Your task to perform on an android device: show emergency info Image 0: 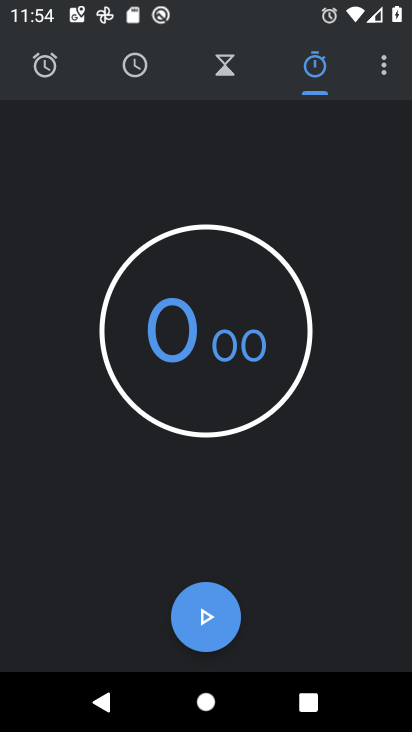
Step 0: press home button
Your task to perform on an android device: show emergency info Image 1: 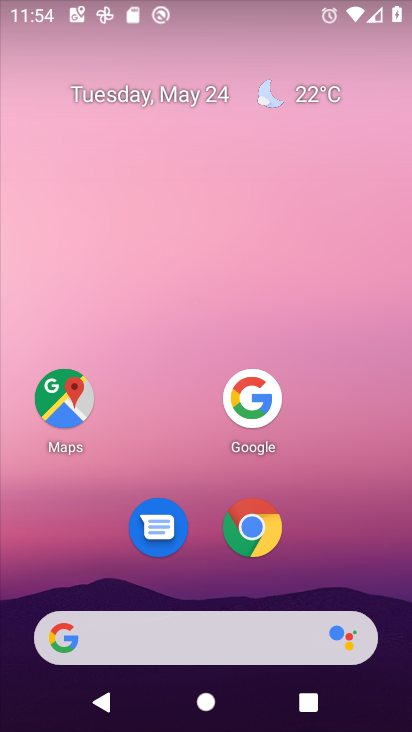
Step 1: drag from (222, 649) to (360, 101)
Your task to perform on an android device: show emergency info Image 2: 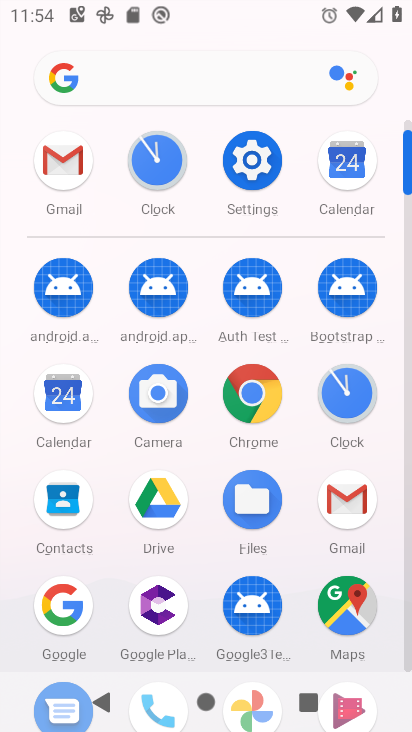
Step 2: click (246, 176)
Your task to perform on an android device: show emergency info Image 3: 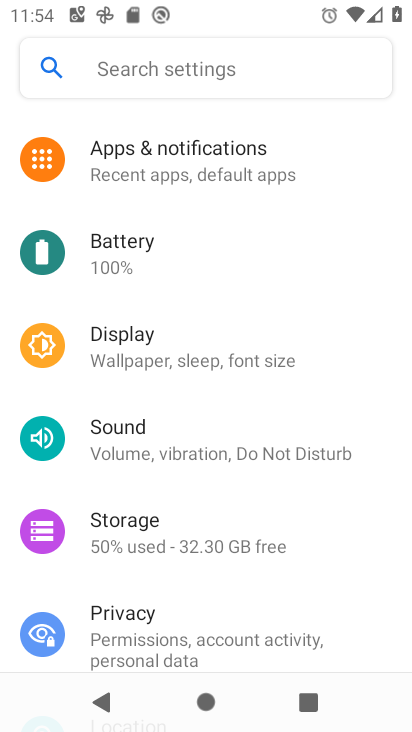
Step 3: drag from (222, 620) to (387, 29)
Your task to perform on an android device: show emergency info Image 4: 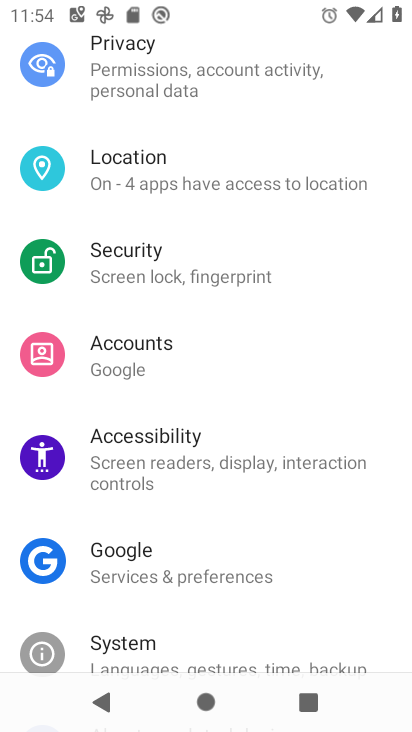
Step 4: drag from (223, 628) to (387, 13)
Your task to perform on an android device: show emergency info Image 5: 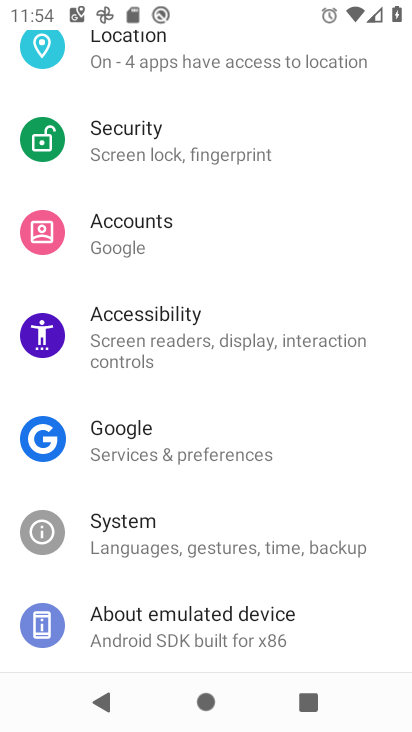
Step 5: click (171, 624)
Your task to perform on an android device: show emergency info Image 6: 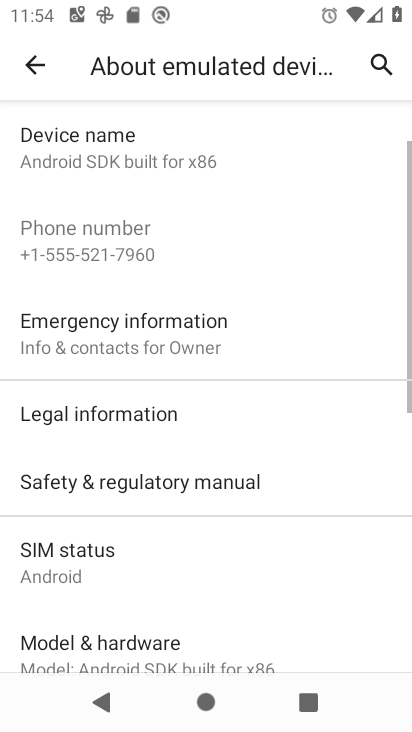
Step 6: click (93, 327)
Your task to perform on an android device: show emergency info Image 7: 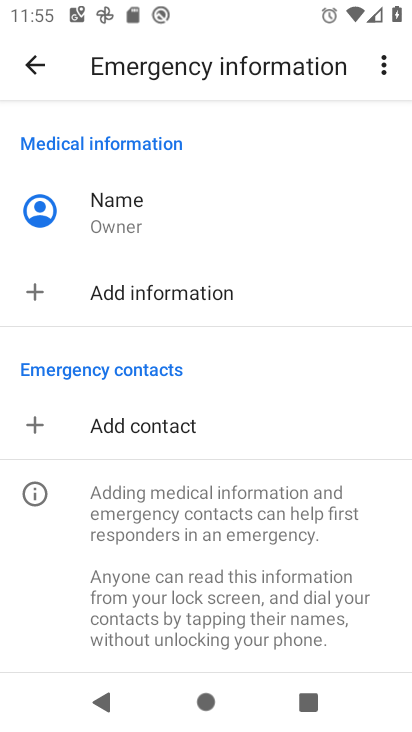
Step 7: task complete